Your task to perform on an android device: Open network settings Image 0: 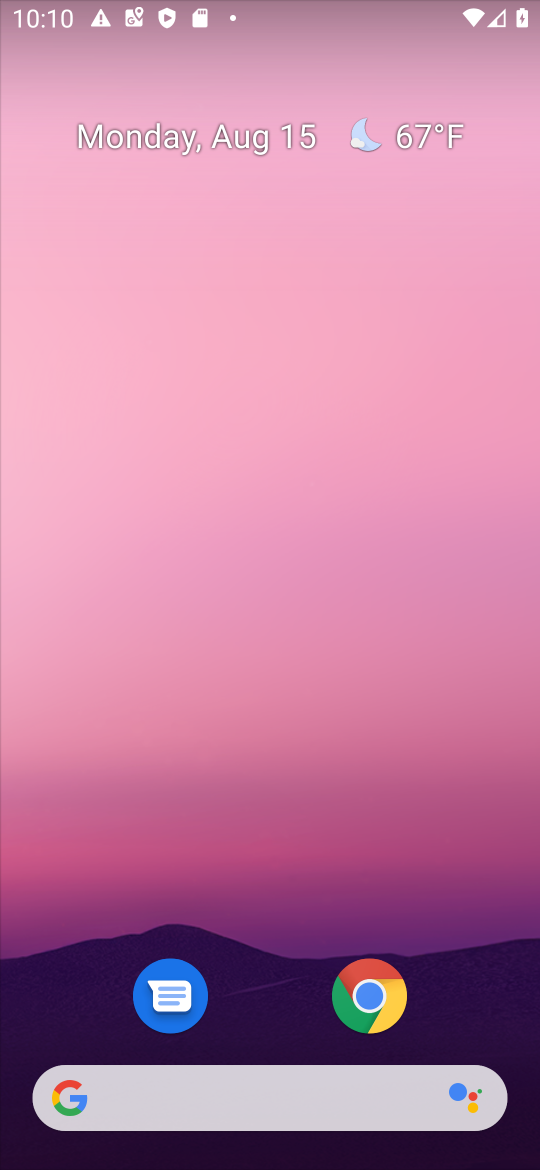
Step 0: drag from (189, 1018) to (210, 250)
Your task to perform on an android device: Open network settings Image 1: 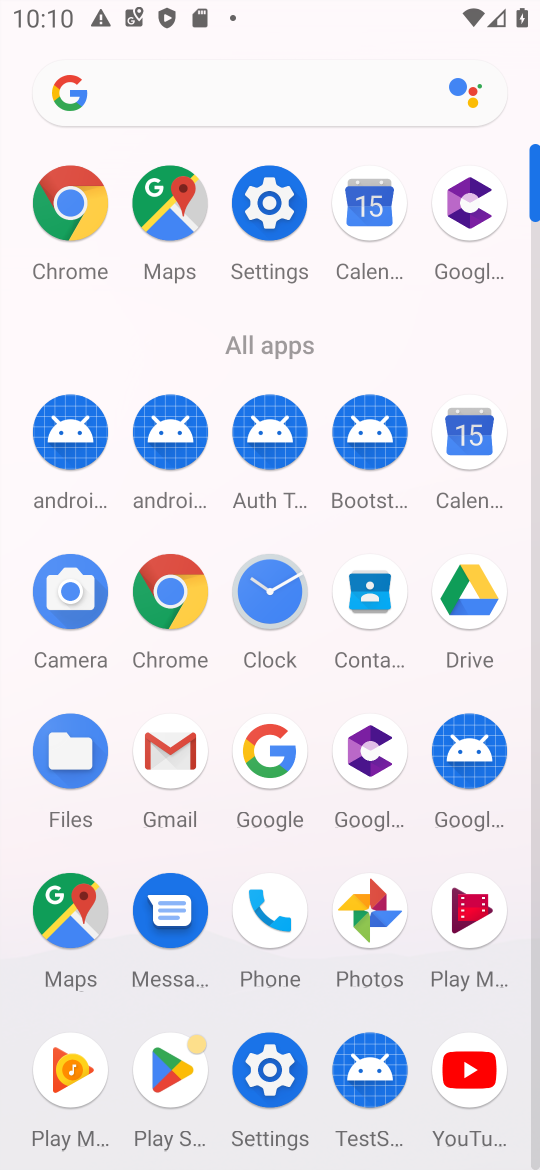
Step 1: click (292, 216)
Your task to perform on an android device: Open network settings Image 2: 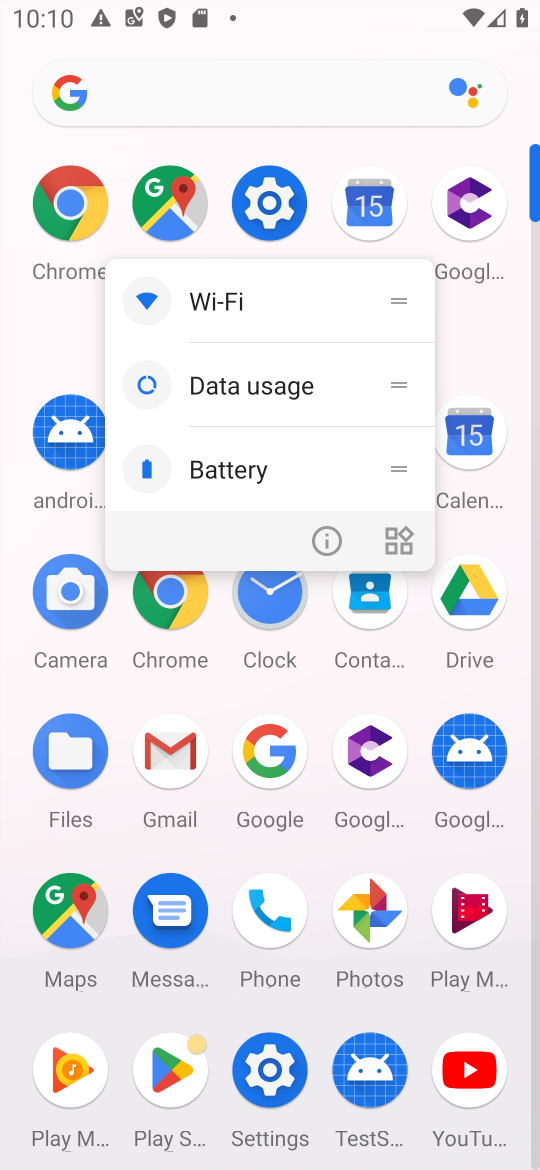
Step 2: click (259, 209)
Your task to perform on an android device: Open network settings Image 3: 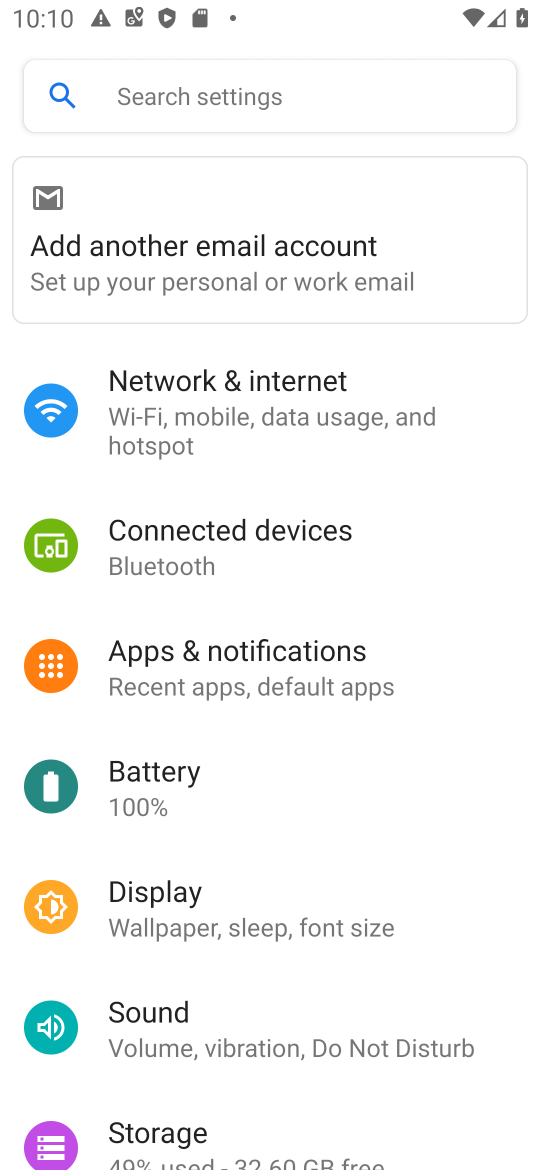
Step 3: click (161, 425)
Your task to perform on an android device: Open network settings Image 4: 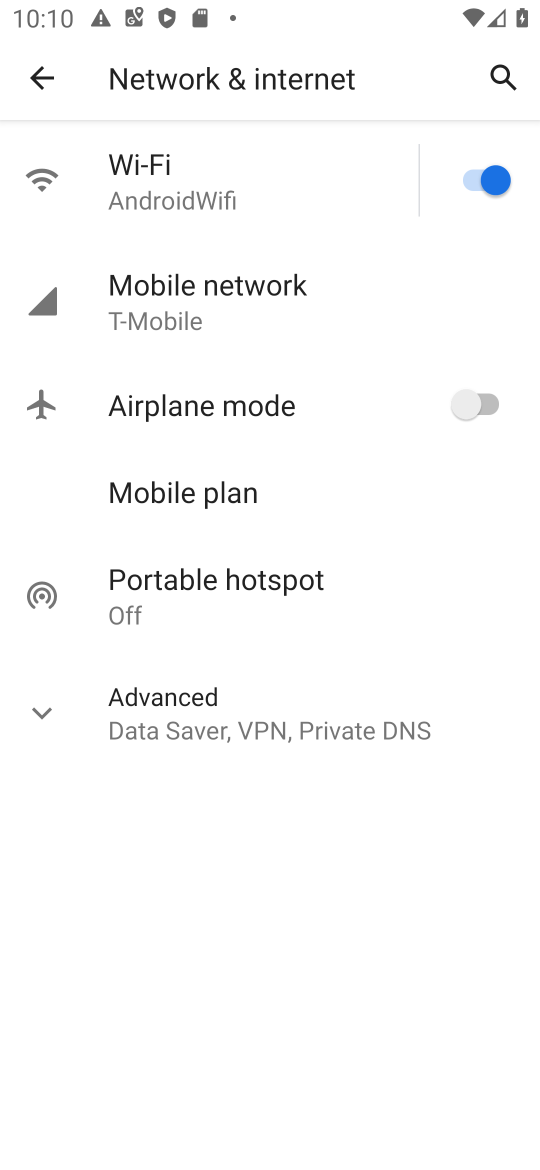
Step 4: click (191, 690)
Your task to perform on an android device: Open network settings Image 5: 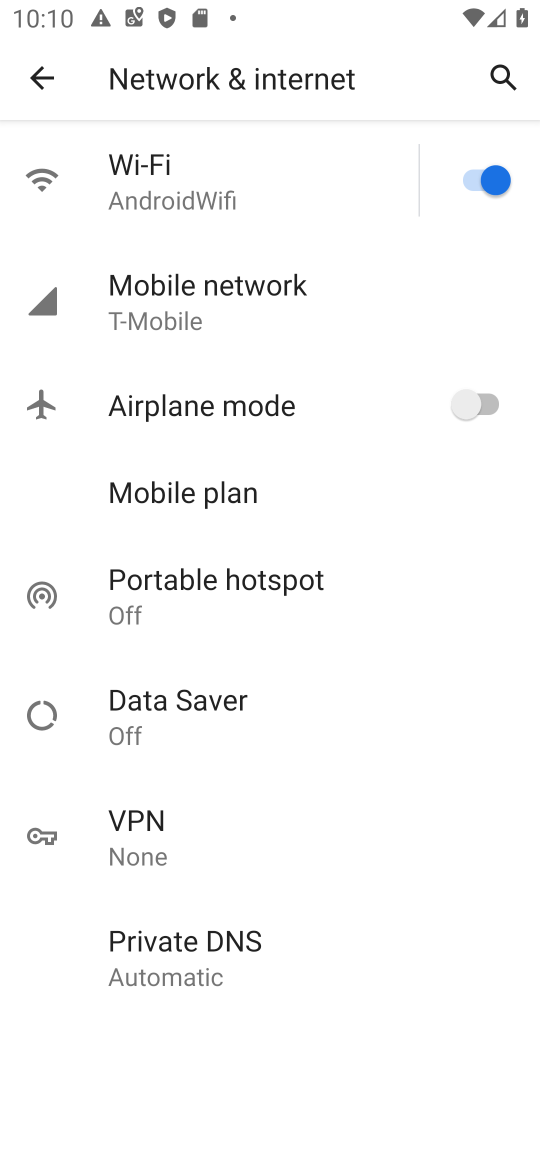
Step 5: task complete